Your task to perform on an android device: Open Android settings Image 0: 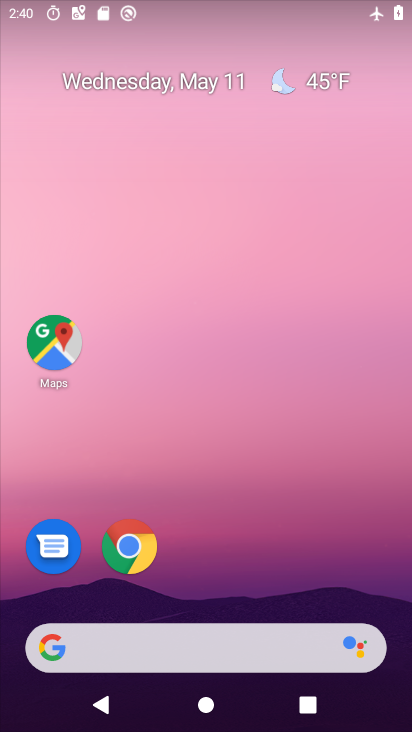
Step 0: drag from (232, 592) to (318, 180)
Your task to perform on an android device: Open Android settings Image 1: 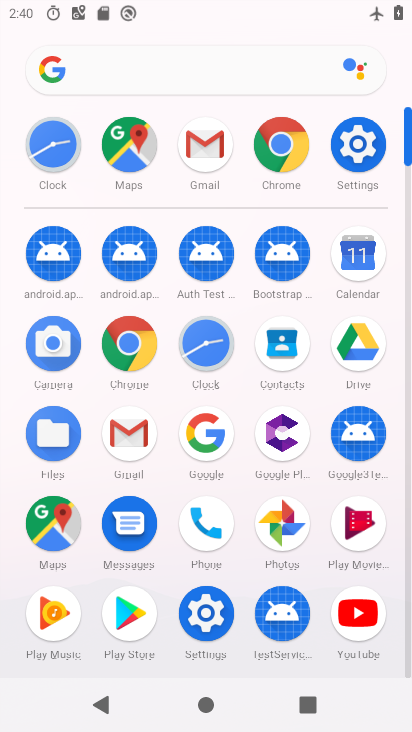
Step 1: click (218, 621)
Your task to perform on an android device: Open Android settings Image 2: 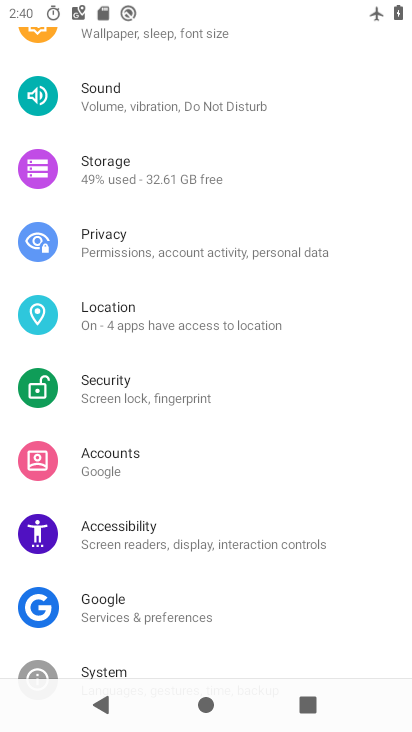
Step 2: drag from (126, 608) to (155, 385)
Your task to perform on an android device: Open Android settings Image 3: 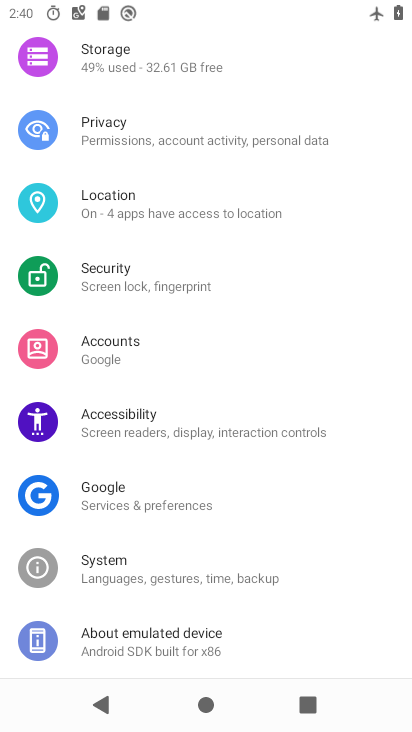
Step 3: drag from (168, 629) to (188, 479)
Your task to perform on an android device: Open Android settings Image 4: 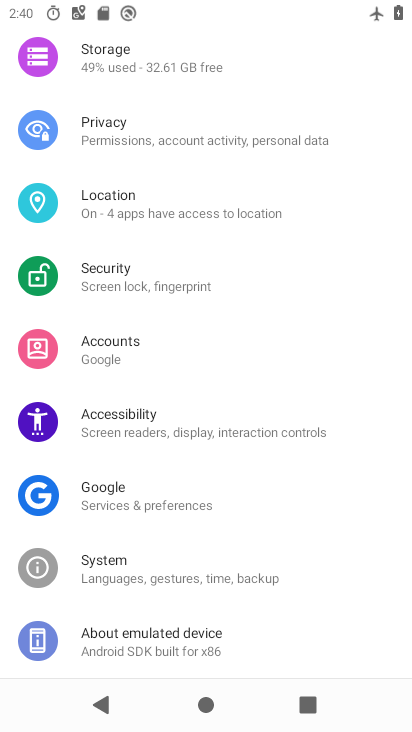
Step 4: click (166, 647)
Your task to perform on an android device: Open Android settings Image 5: 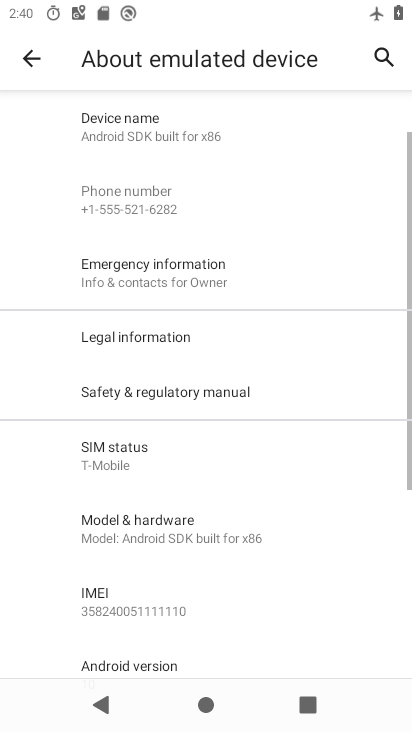
Step 5: drag from (133, 555) to (192, 283)
Your task to perform on an android device: Open Android settings Image 6: 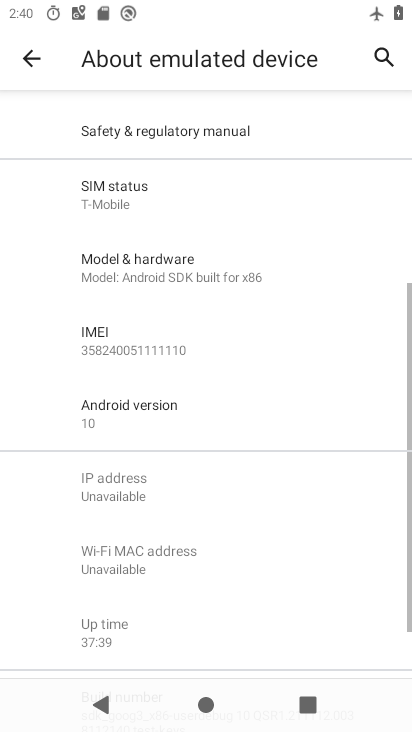
Step 6: click (160, 412)
Your task to perform on an android device: Open Android settings Image 7: 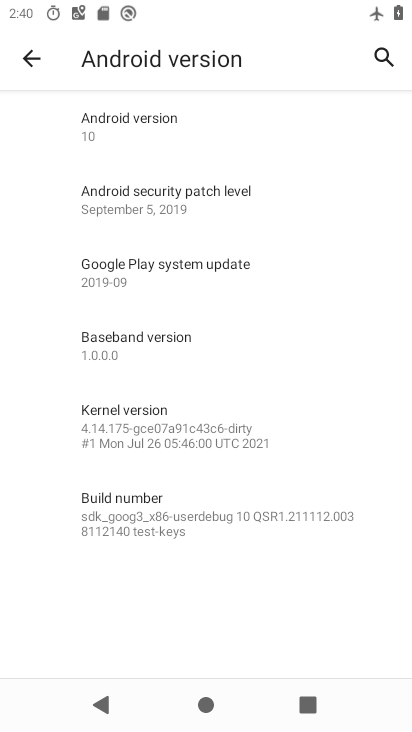
Step 7: task complete